Your task to perform on an android device: snooze an email in the gmail app Image 0: 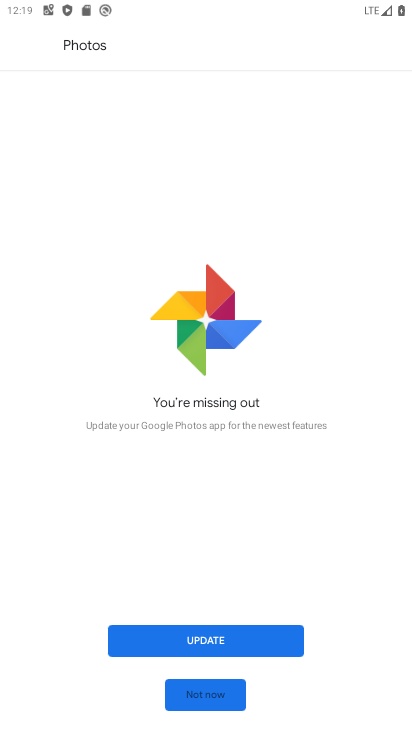
Step 0: press home button
Your task to perform on an android device: snooze an email in the gmail app Image 1: 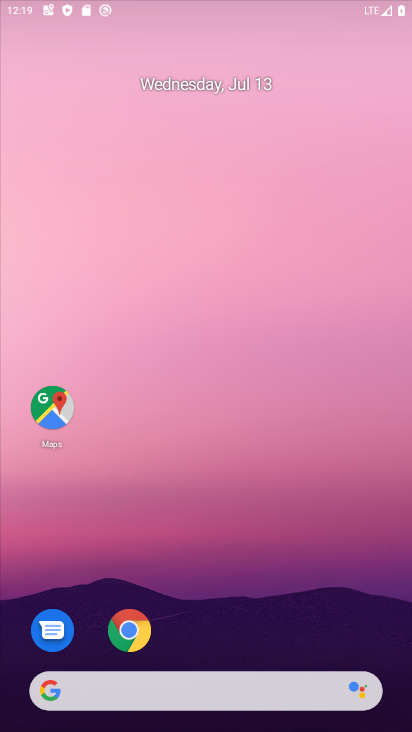
Step 1: drag from (289, 287) to (204, 72)
Your task to perform on an android device: snooze an email in the gmail app Image 2: 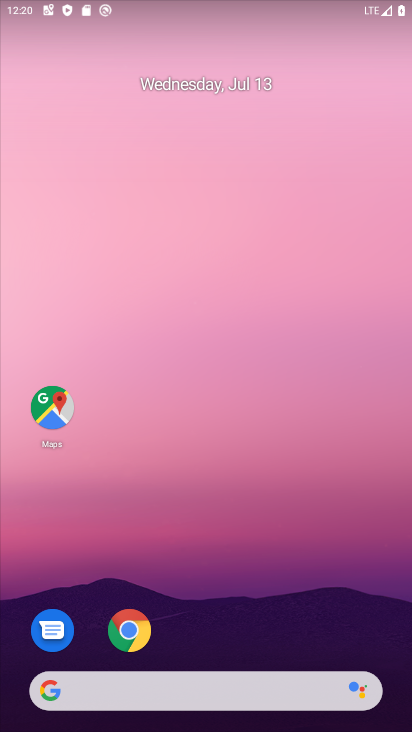
Step 2: drag from (365, 625) to (223, 13)
Your task to perform on an android device: snooze an email in the gmail app Image 3: 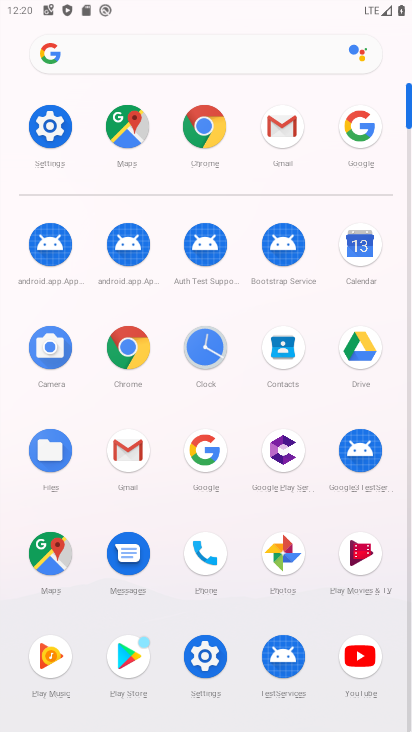
Step 3: click (138, 452)
Your task to perform on an android device: snooze an email in the gmail app Image 4: 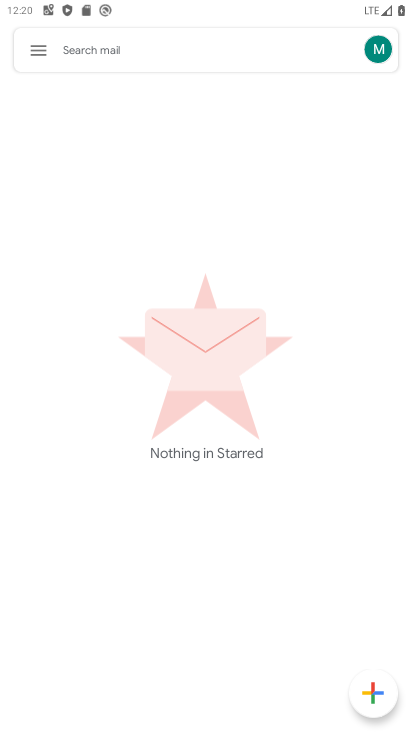
Step 4: click (38, 54)
Your task to perform on an android device: snooze an email in the gmail app Image 5: 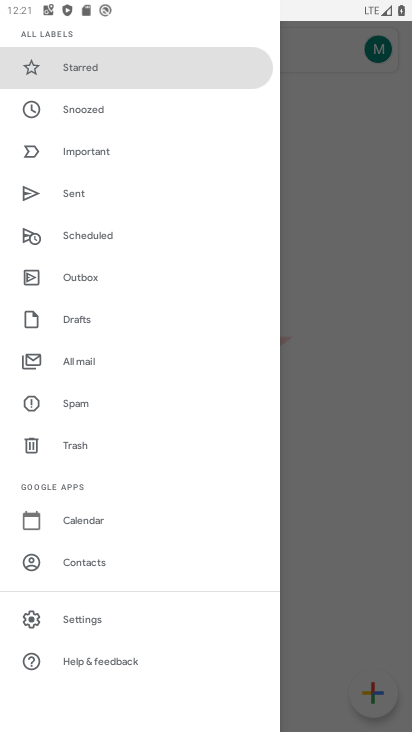
Step 5: task complete